Your task to perform on an android device: Open the web browser Image 0: 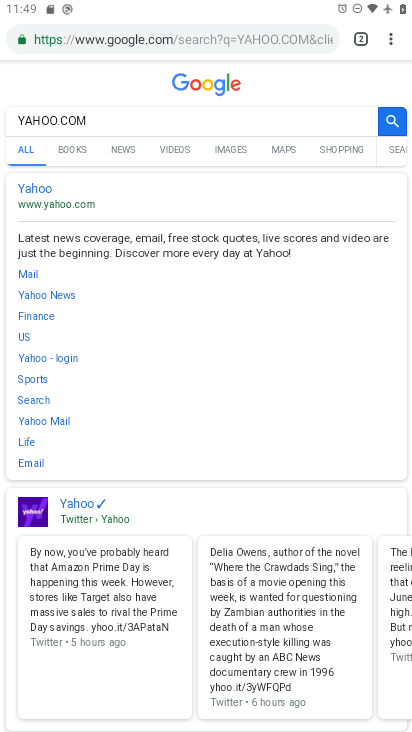
Step 0: click (393, 40)
Your task to perform on an android device: Open the web browser Image 1: 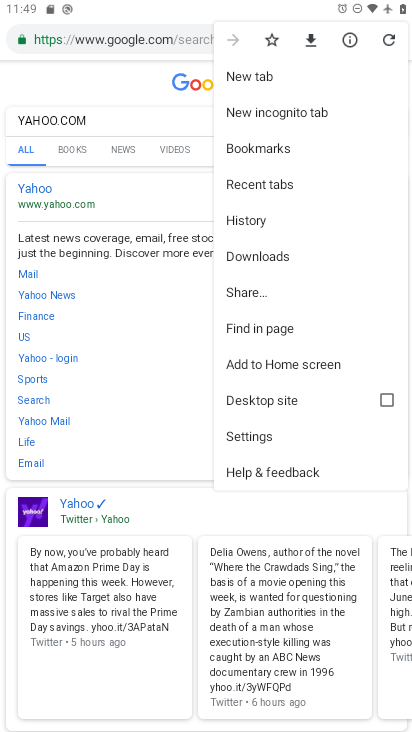
Step 1: click (256, 425)
Your task to perform on an android device: Open the web browser Image 2: 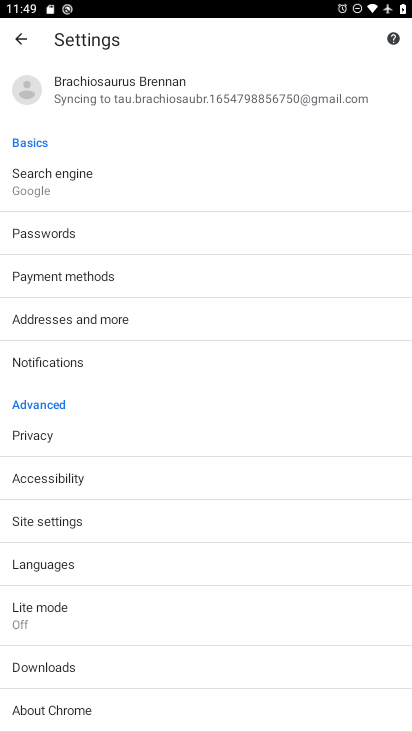
Step 2: task complete